Your task to perform on an android device: check storage Image 0: 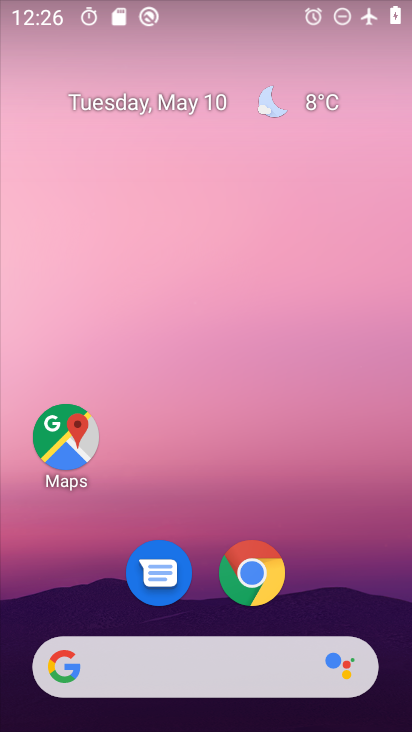
Step 0: drag from (333, 521) to (350, 68)
Your task to perform on an android device: check storage Image 1: 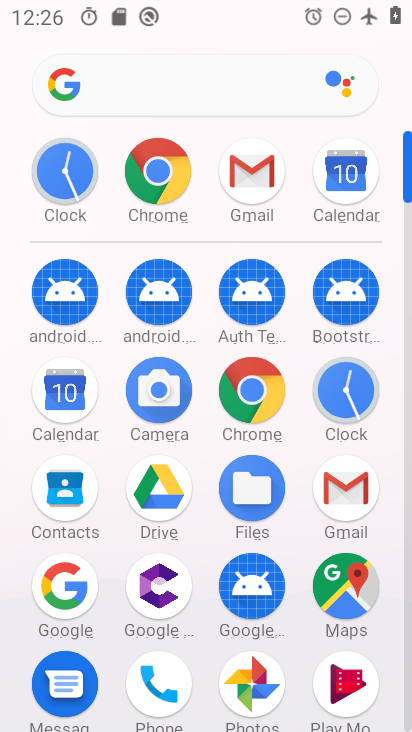
Step 1: drag from (211, 628) to (224, 219)
Your task to perform on an android device: check storage Image 2: 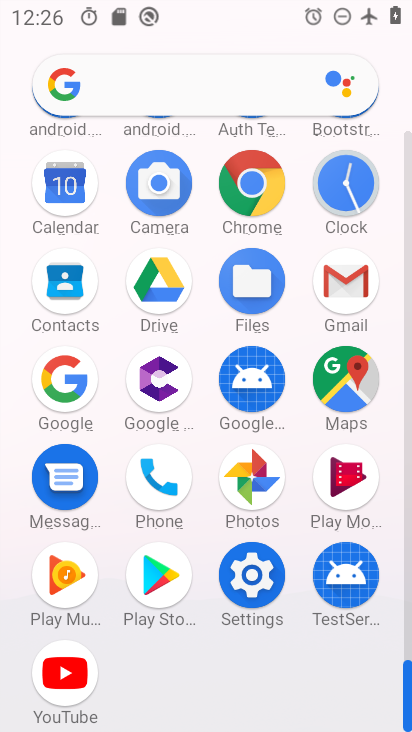
Step 2: click (252, 585)
Your task to perform on an android device: check storage Image 3: 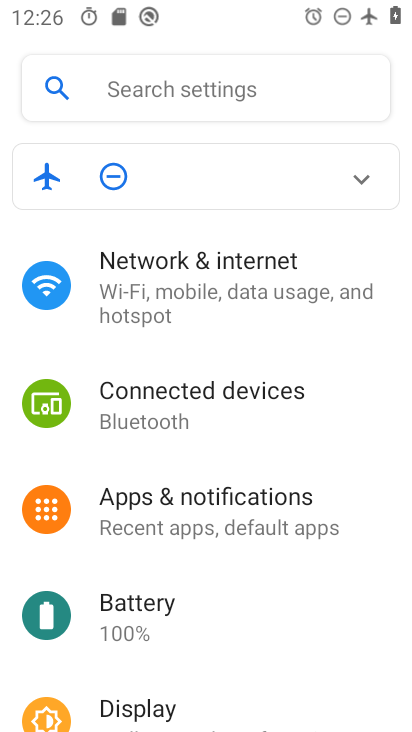
Step 3: drag from (241, 616) to (273, 272)
Your task to perform on an android device: check storage Image 4: 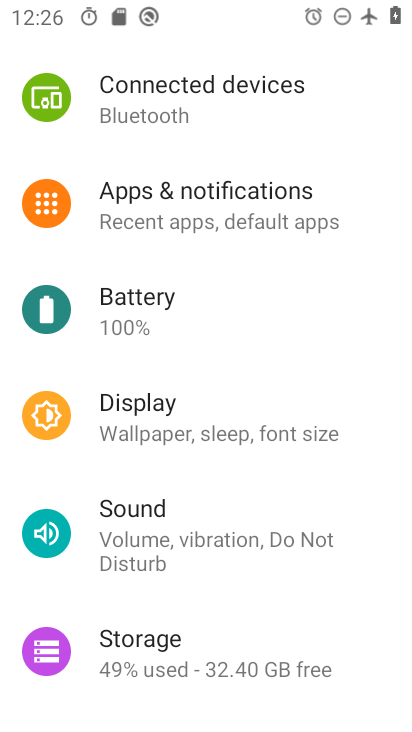
Step 4: drag from (200, 613) to (235, 437)
Your task to perform on an android device: check storage Image 5: 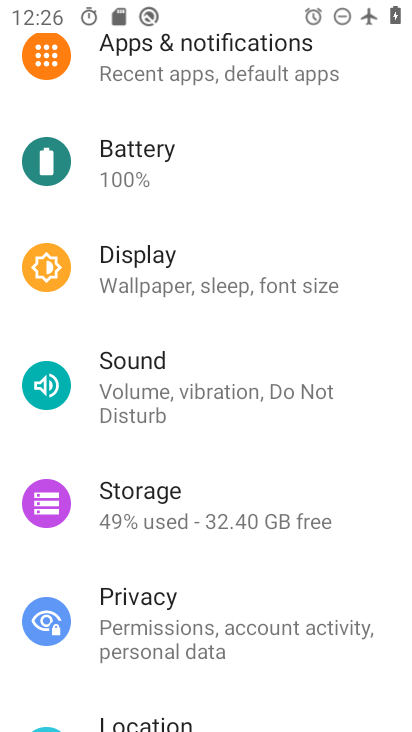
Step 5: click (141, 520)
Your task to perform on an android device: check storage Image 6: 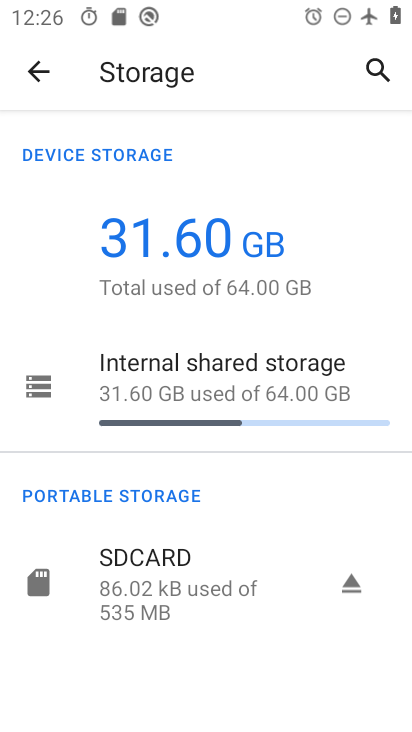
Step 6: task complete